Your task to perform on an android device: find which apps use the phone's location Image 0: 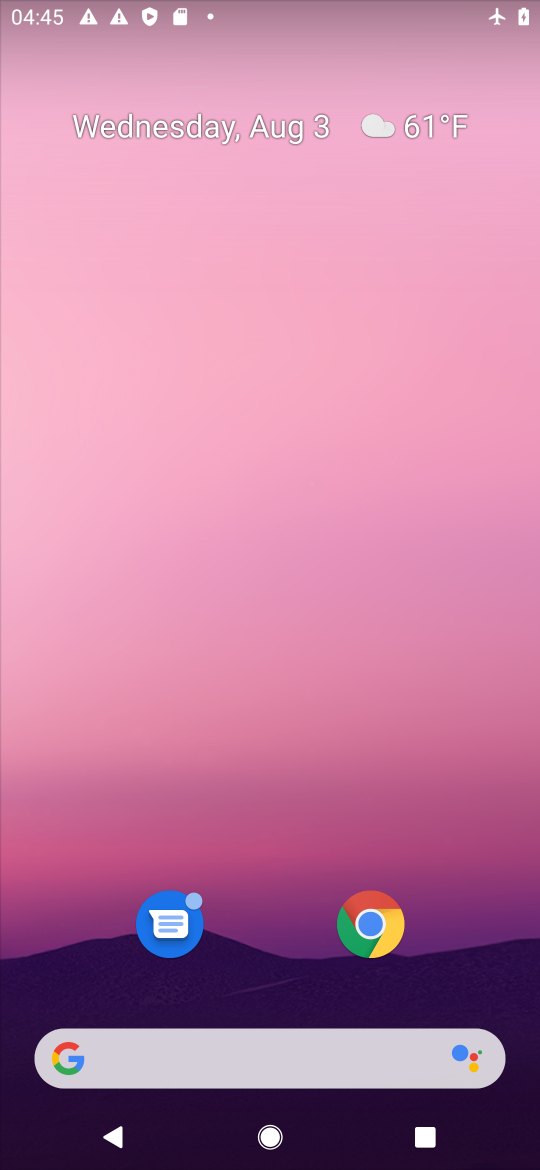
Step 0: drag from (286, 978) to (245, 342)
Your task to perform on an android device: find which apps use the phone's location Image 1: 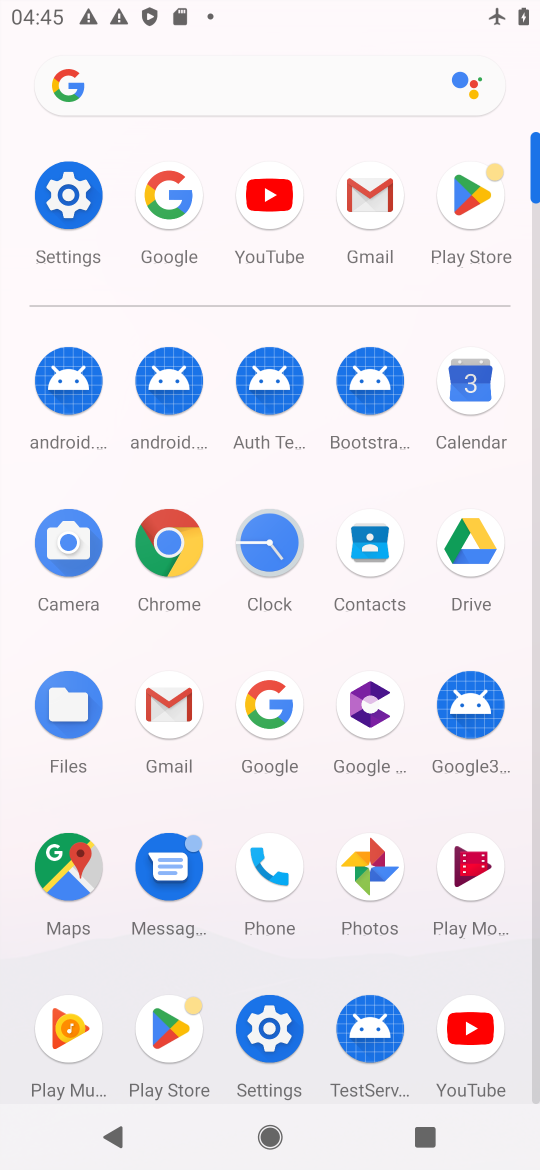
Step 1: click (86, 210)
Your task to perform on an android device: find which apps use the phone's location Image 2: 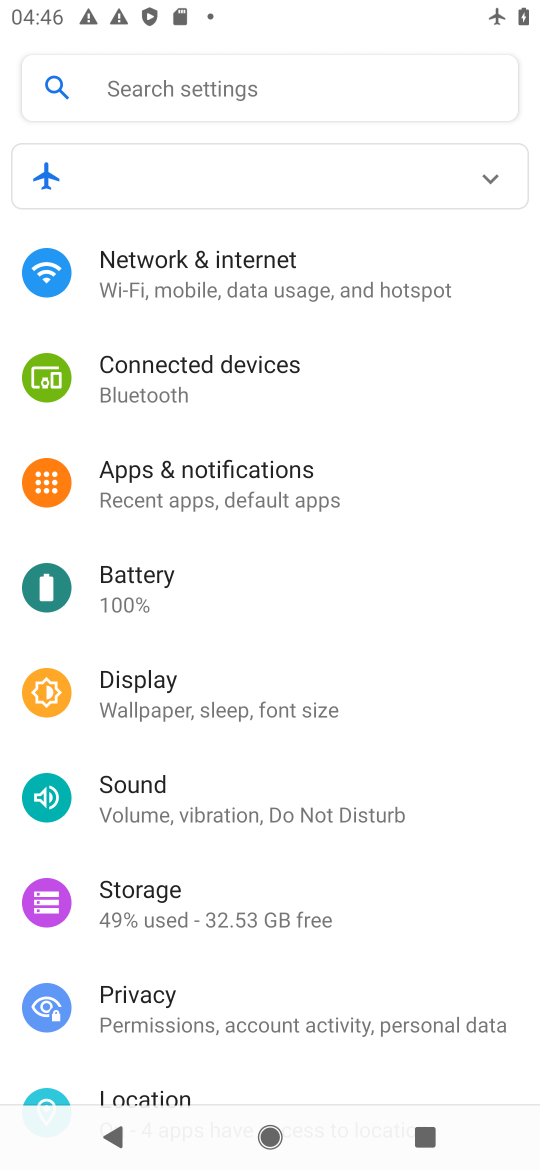
Step 2: click (233, 1082)
Your task to perform on an android device: find which apps use the phone's location Image 3: 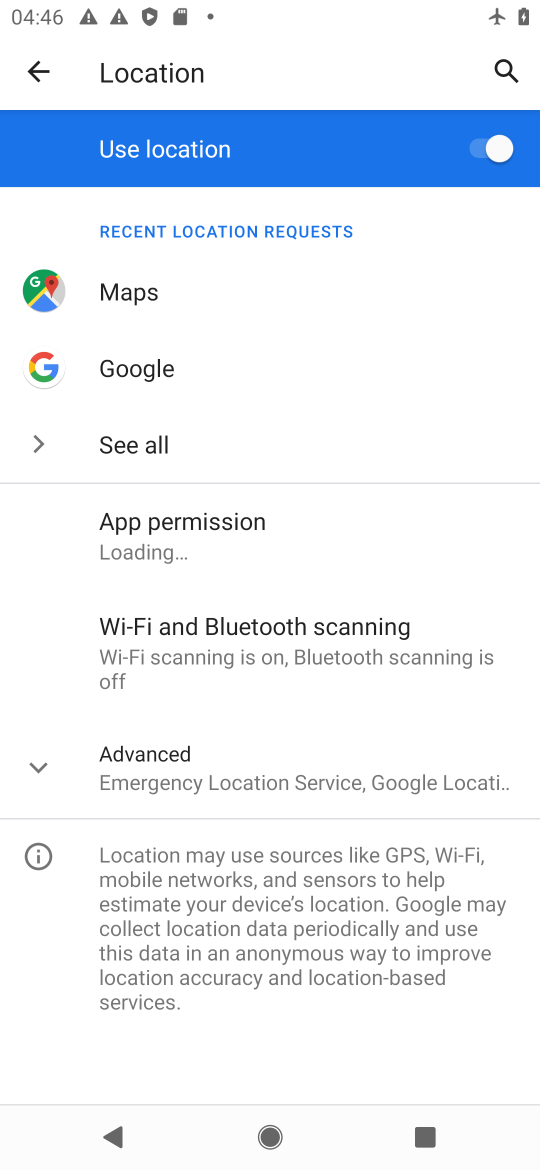
Step 3: click (163, 545)
Your task to perform on an android device: find which apps use the phone's location Image 4: 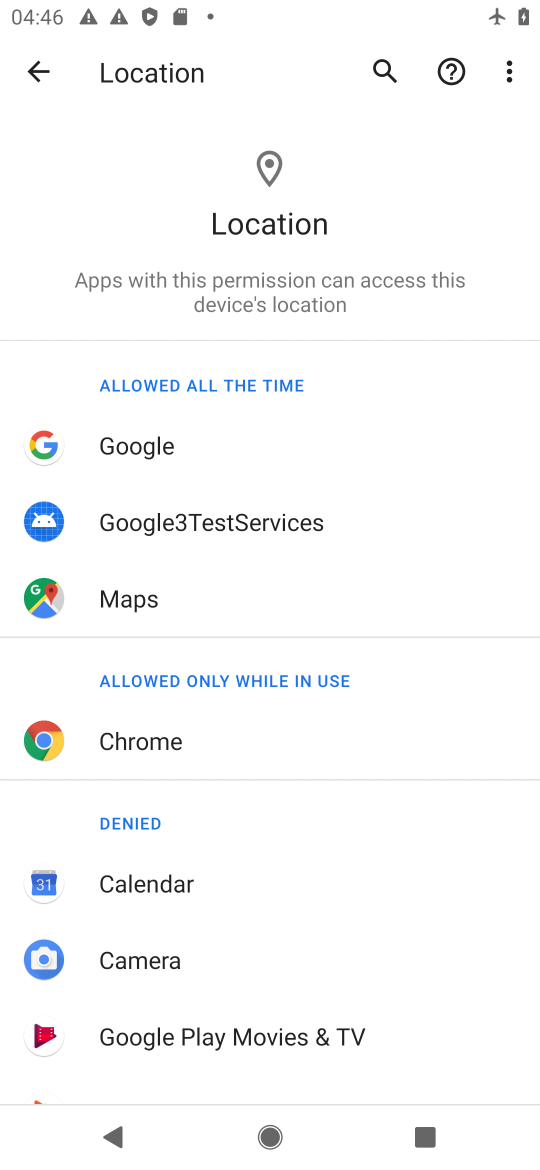
Step 4: task complete